Your task to perform on an android device: turn on data saver in the chrome app Image 0: 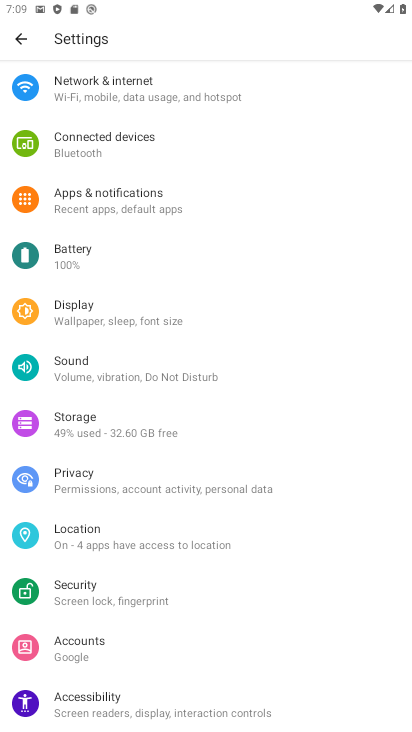
Step 0: press home button
Your task to perform on an android device: turn on data saver in the chrome app Image 1: 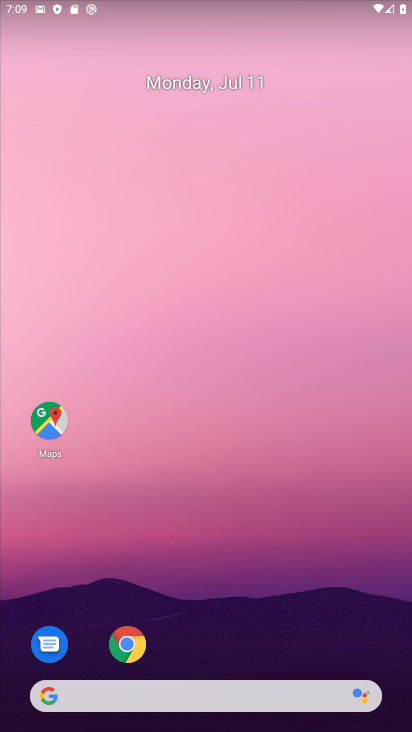
Step 1: click (129, 651)
Your task to perform on an android device: turn on data saver in the chrome app Image 2: 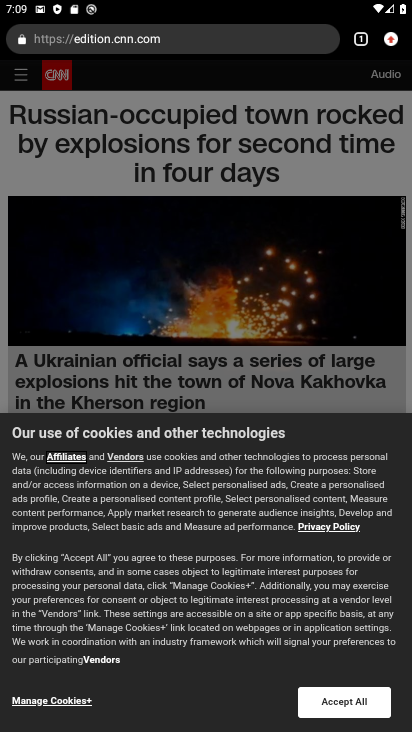
Step 2: click (384, 49)
Your task to perform on an android device: turn on data saver in the chrome app Image 3: 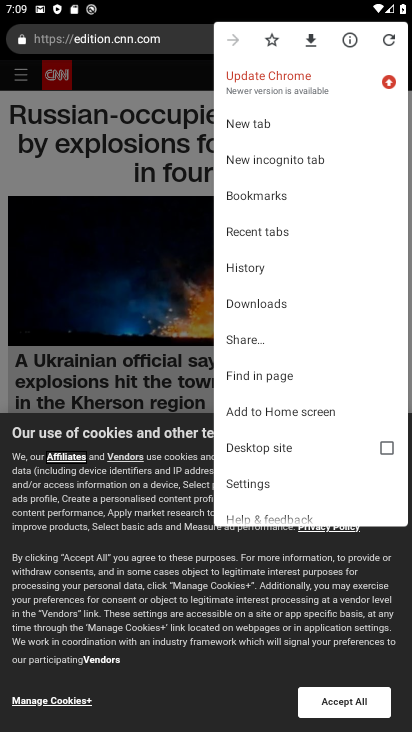
Step 3: click (250, 482)
Your task to perform on an android device: turn on data saver in the chrome app Image 4: 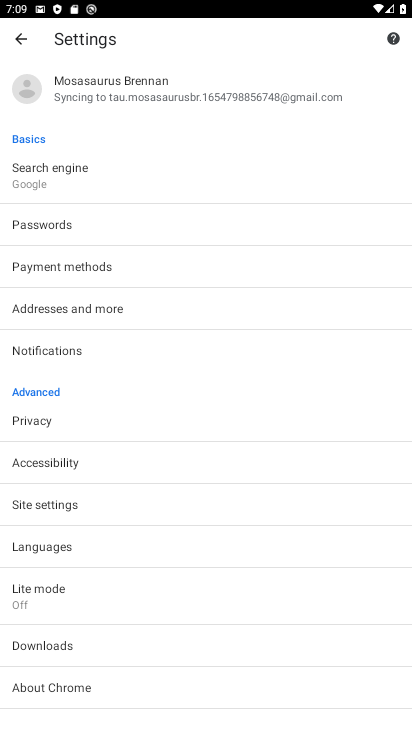
Step 4: click (46, 592)
Your task to perform on an android device: turn on data saver in the chrome app Image 5: 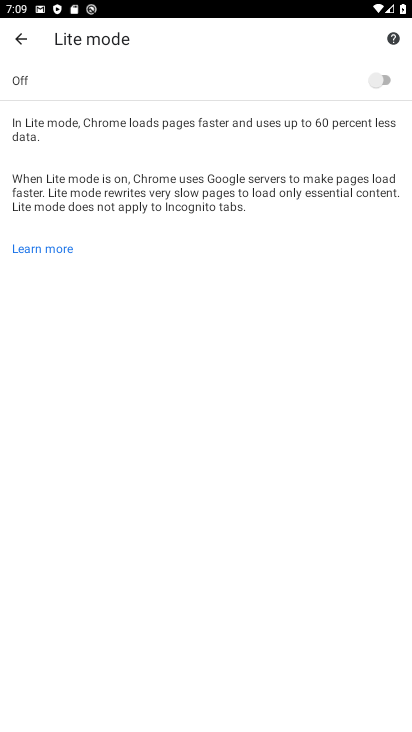
Step 5: click (384, 79)
Your task to perform on an android device: turn on data saver in the chrome app Image 6: 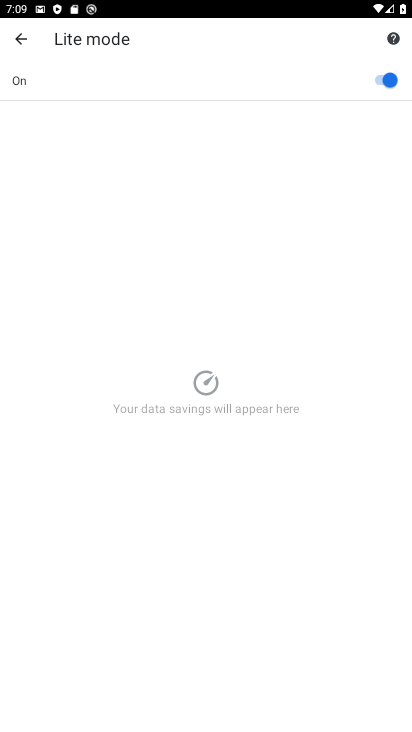
Step 6: task complete